Your task to perform on an android device: turn on improve location accuracy Image 0: 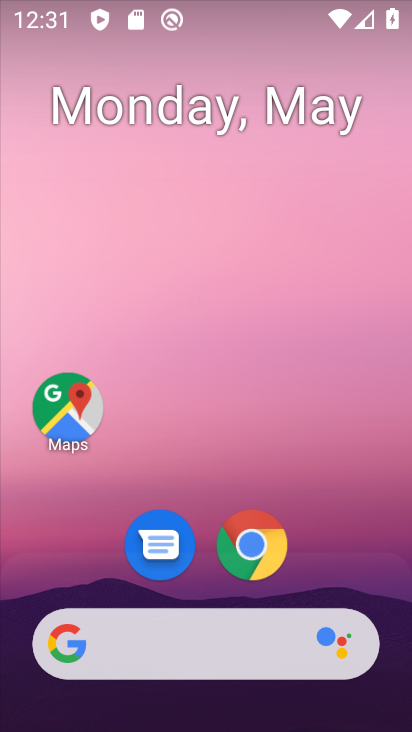
Step 0: drag from (379, 475) to (327, 105)
Your task to perform on an android device: turn on improve location accuracy Image 1: 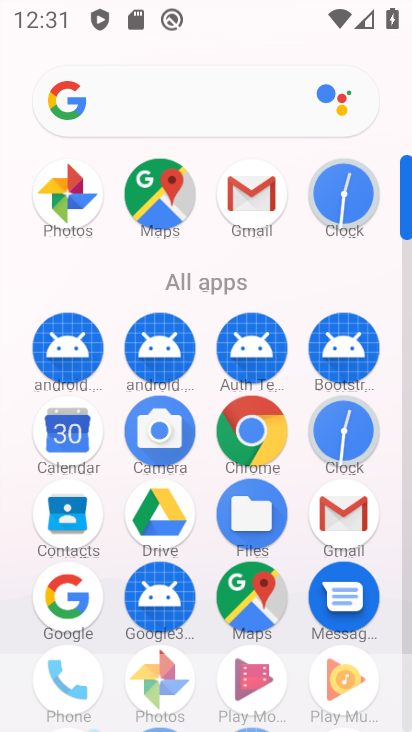
Step 1: drag from (287, 585) to (293, 223)
Your task to perform on an android device: turn on improve location accuracy Image 2: 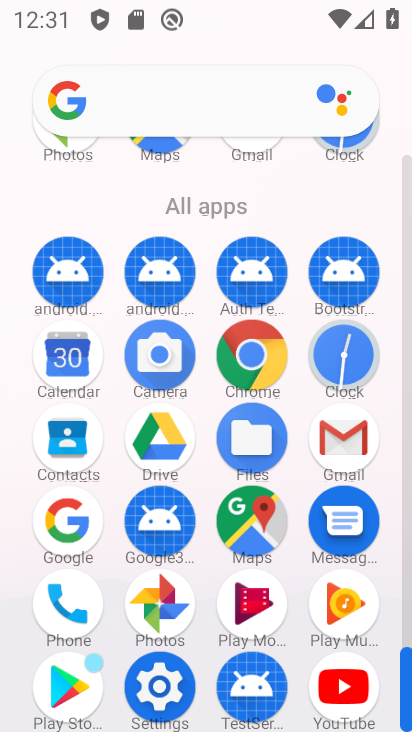
Step 2: click (147, 679)
Your task to perform on an android device: turn on improve location accuracy Image 3: 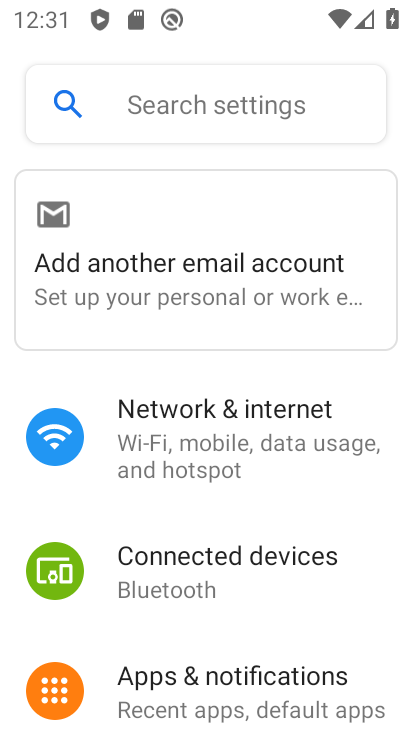
Step 3: drag from (290, 612) to (275, 360)
Your task to perform on an android device: turn on improve location accuracy Image 4: 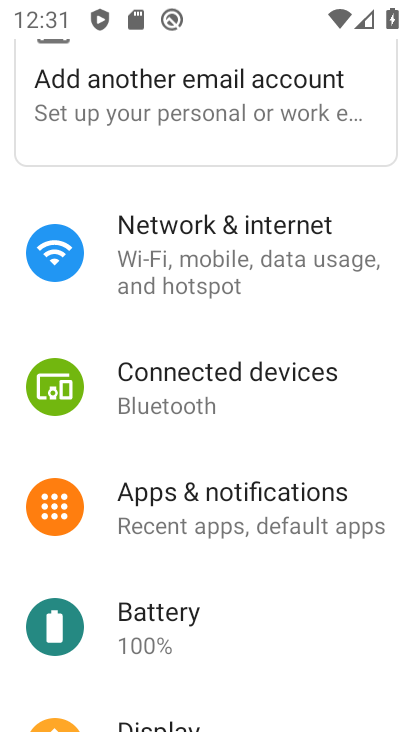
Step 4: drag from (269, 630) to (245, 270)
Your task to perform on an android device: turn on improve location accuracy Image 5: 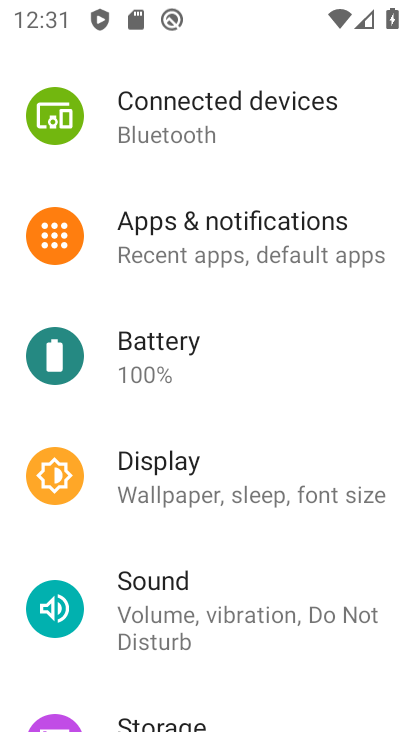
Step 5: drag from (246, 684) to (267, 335)
Your task to perform on an android device: turn on improve location accuracy Image 6: 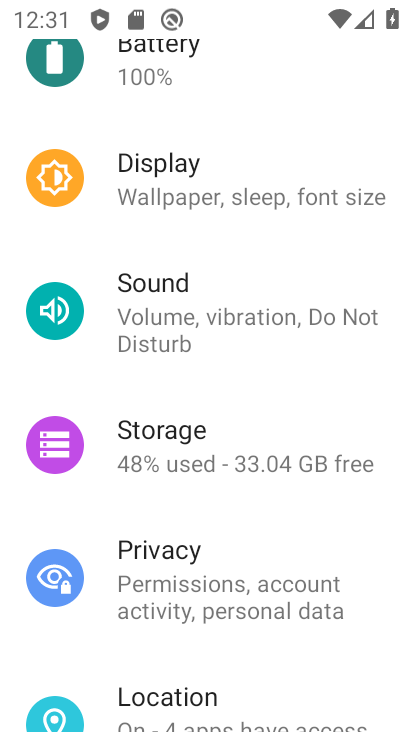
Step 6: drag from (249, 658) to (250, 359)
Your task to perform on an android device: turn on improve location accuracy Image 7: 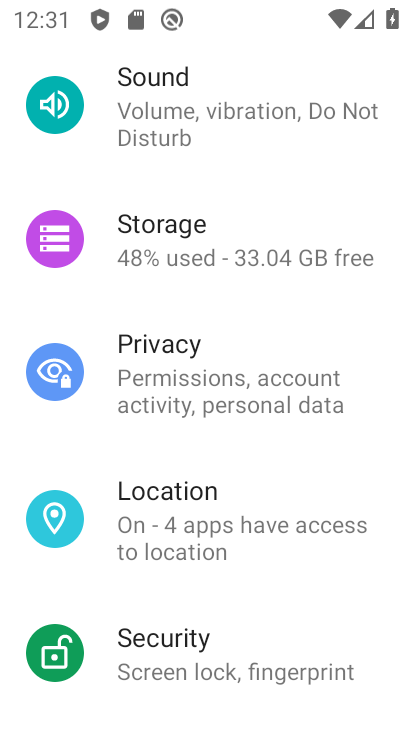
Step 7: click (249, 514)
Your task to perform on an android device: turn on improve location accuracy Image 8: 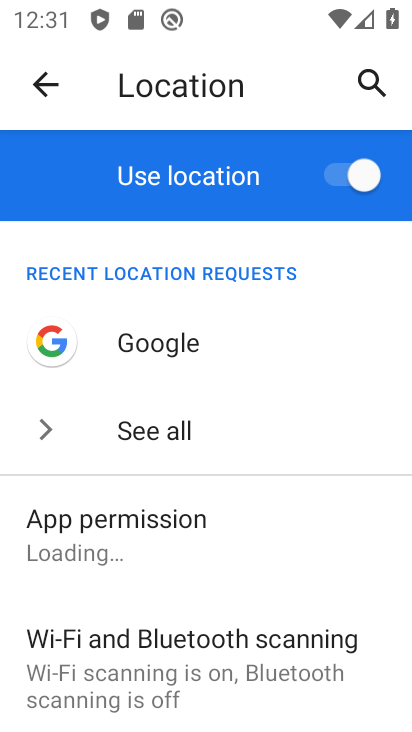
Step 8: drag from (303, 571) to (330, 306)
Your task to perform on an android device: turn on improve location accuracy Image 9: 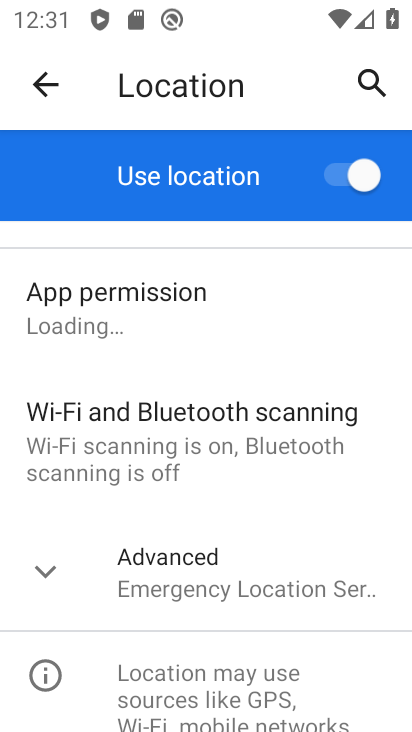
Step 9: click (282, 580)
Your task to perform on an android device: turn on improve location accuracy Image 10: 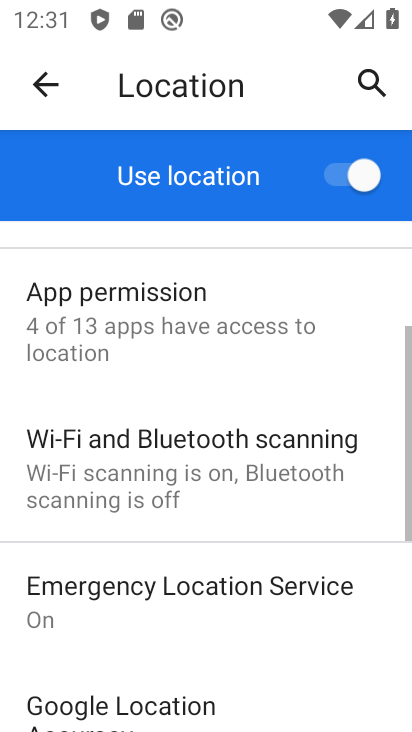
Step 10: drag from (297, 655) to (269, 353)
Your task to perform on an android device: turn on improve location accuracy Image 11: 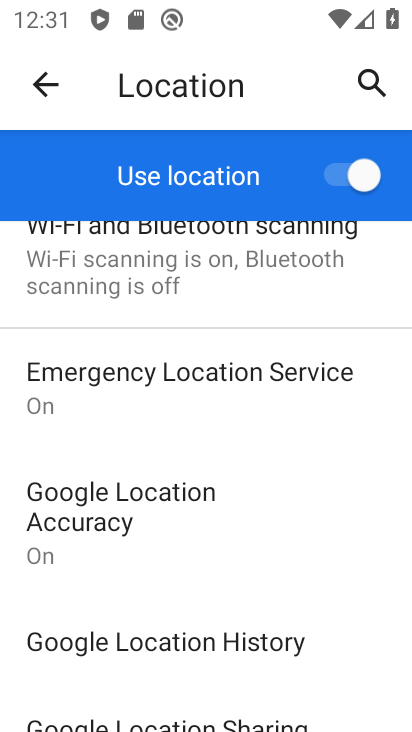
Step 11: drag from (271, 592) to (219, 308)
Your task to perform on an android device: turn on improve location accuracy Image 12: 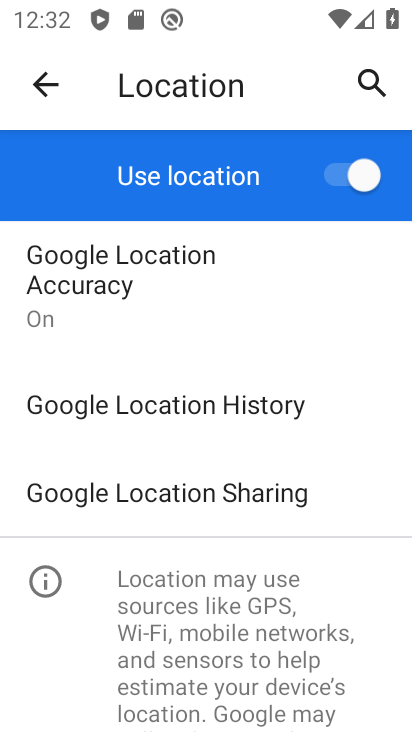
Step 12: drag from (343, 327) to (353, 469)
Your task to perform on an android device: turn on improve location accuracy Image 13: 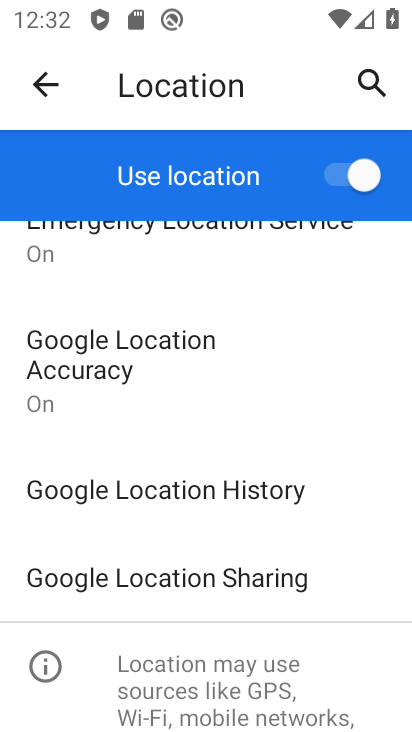
Step 13: click (170, 362)
Your task to perform on an android device: turn on improve location accuracy Image 14: 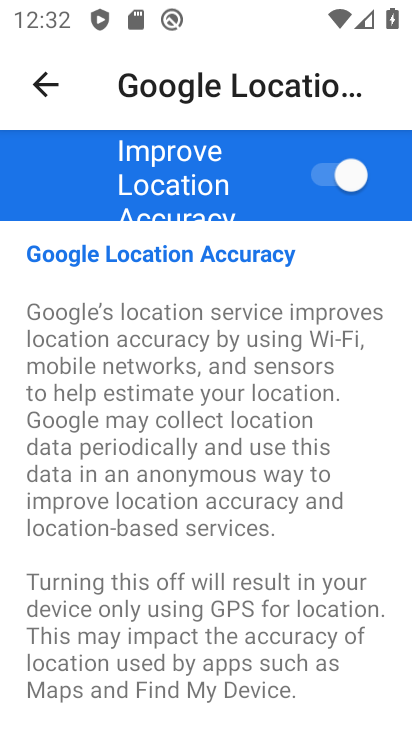
Step 14: task complete